Your task to perform on an android device: delete a single message in the gmail app Image 0: 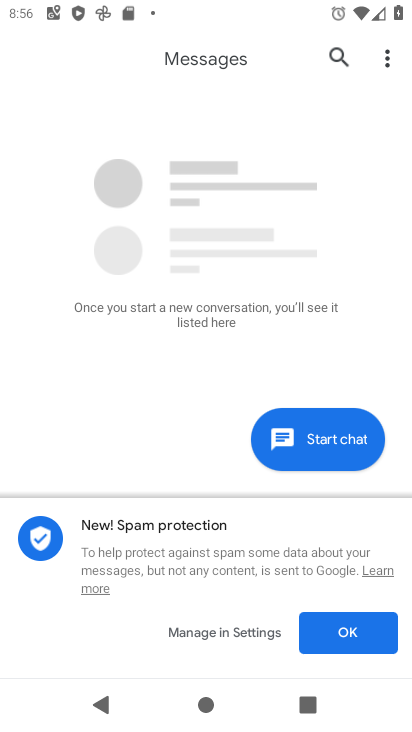
Step 0: press home button
Your task to perform on an android device: delete a single message in the gmail app Image 1: 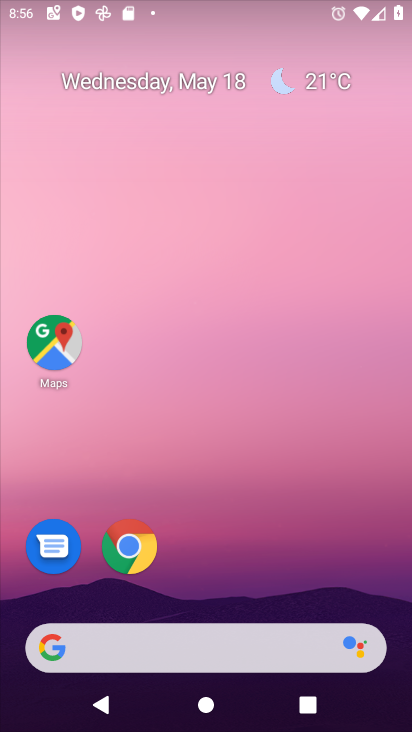
Step 1: drag from (400, 635) to (327, 130)
Your task to perform on an android device: delete a single message in the gmail app Image 2: 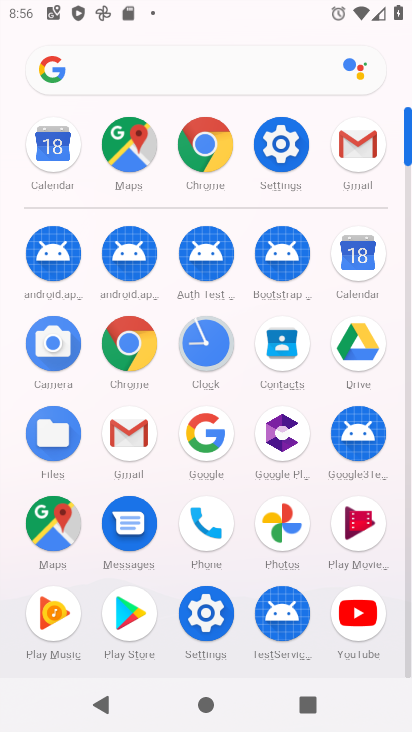
Step 2: click (142, 433)
Your task to perform on an android device: delete a single message in the gmail app Image 3: 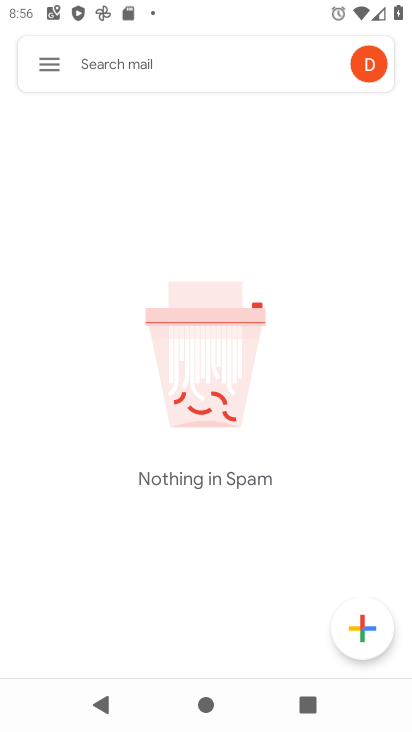
Step 3: click (35, 62)
Your task to perform on an android device: delete a single message in the gmail app Image 4: 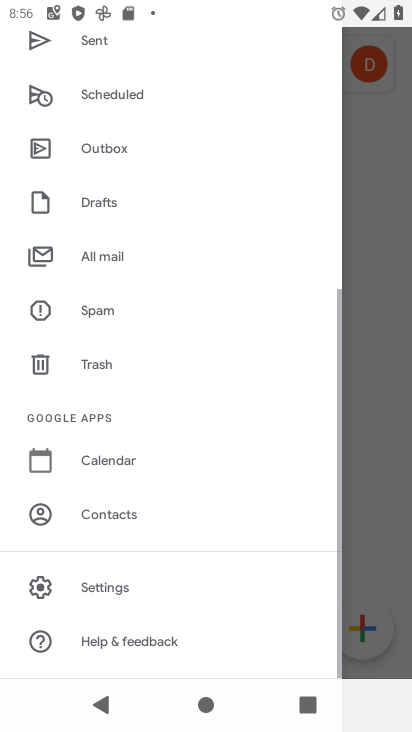
Step 4: drag from (140, 119) to (93, 688)
Your task to perform on an android device: delete a single message in the gmail app Image 5: 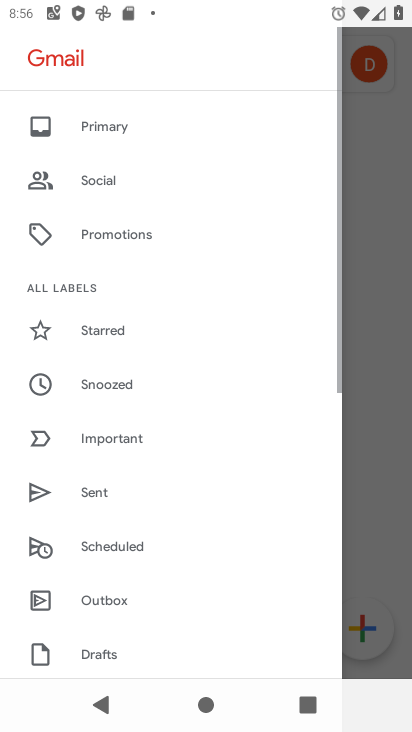
Step 5: click (161, 128)
Your task to perform on an android device: delete a single message in the gmail app Image 6: 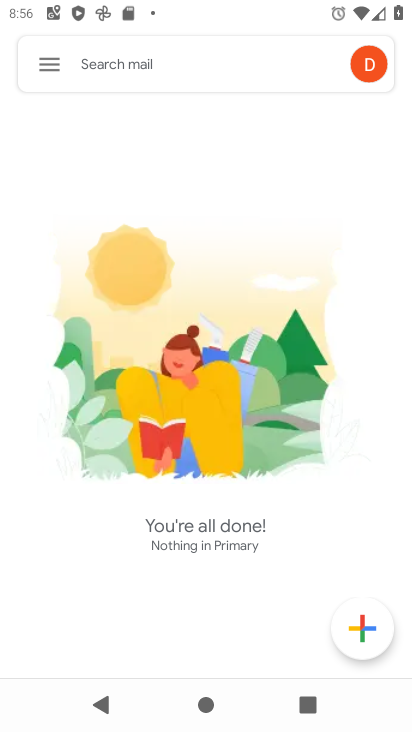
Step 6: task complete